Your task to perform on an android device: Show me popular games on the Play Store Image 0: 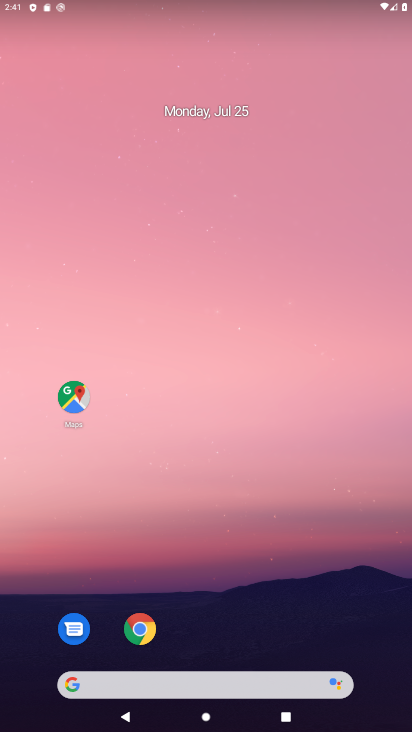
Step 0: drag from (234, 643) to (263, 23)
Your task to perform on an android device: Show me popular games on the Play Store Image 1: 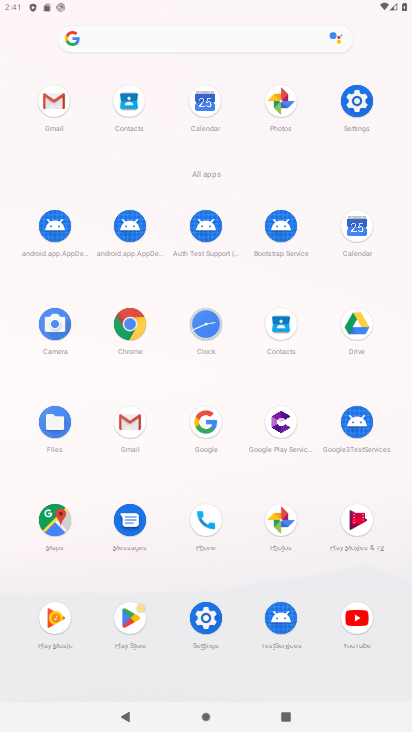
Step 1: click (130, 617)
Your task to perform on an android device: Show me popular games on the Play Store Image 2: 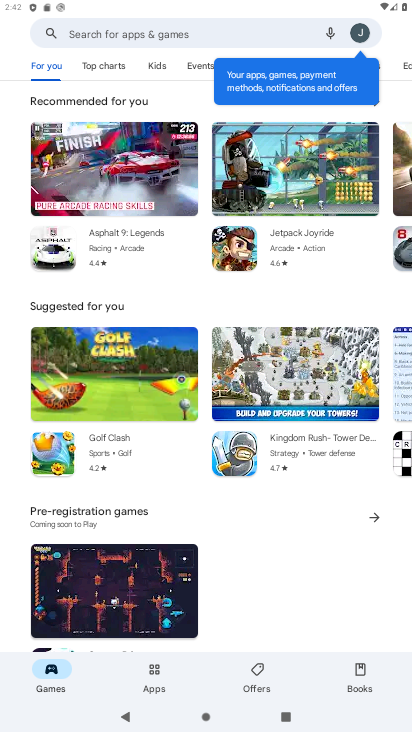
Step 2: drag from (167, 436) to (163, 232)
Your task to perform on an android device: Show me popular games on the Play Store Image 3: 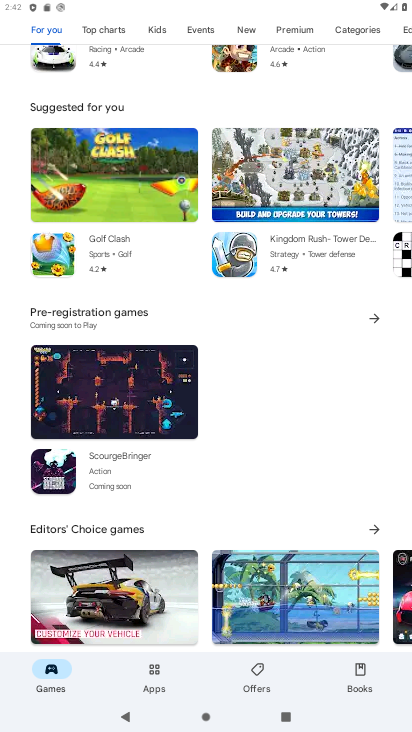
Step 3: click (163, 199)
Your task to perform on an android device: Show me popular games on the Play Store Image 4: 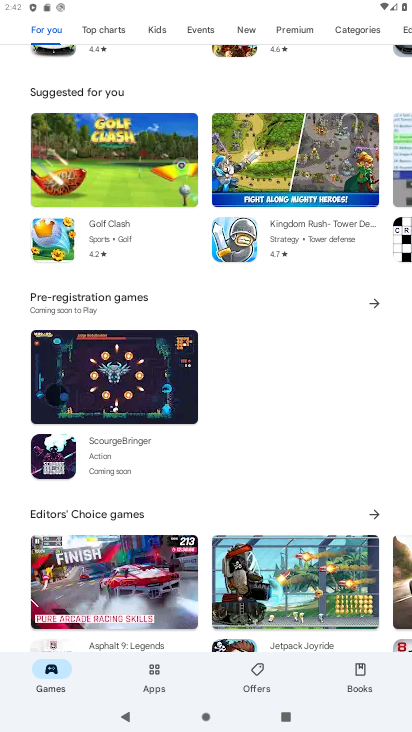
Step 4: drag from (186, 538) to (180, 211)
Your task to perform on an android device: Show me popular games on the Play Store Image 5: 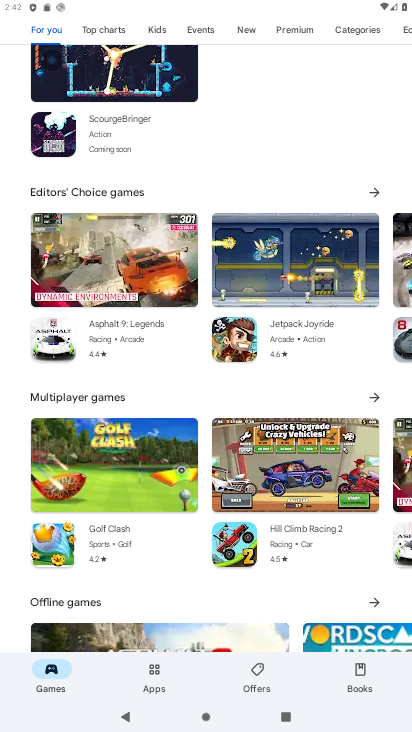
Step 5: drag from (178, 502) to (167, 216)
Your task to perform on an android device: Show me popular games on the Play Store Image 6: 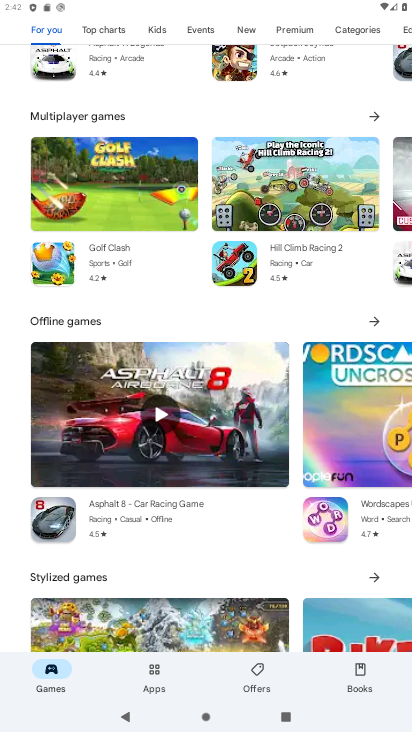
Step 6: drag from (172, 533) to (156, 238)
Your task to perform on an android device: Show me popular games on the Play Store Image 7: 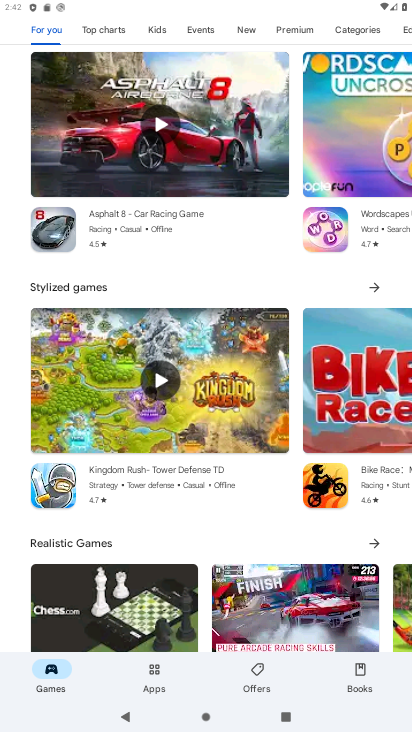
Step 7: drag from (156, 237) to (160, 599)
Your task to perform on an android device: Show me popular games on the Play Store Image 8: 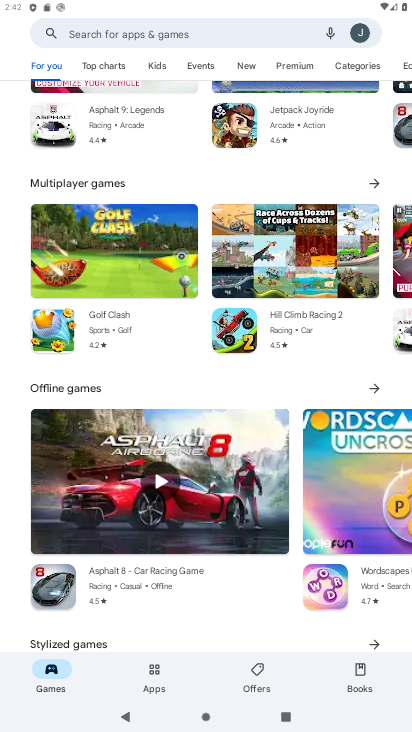
Step 8: drag from (156, 216) to (161, 543)
Your task to perform on an android device: Show me popular games on the Play Store Image 9: 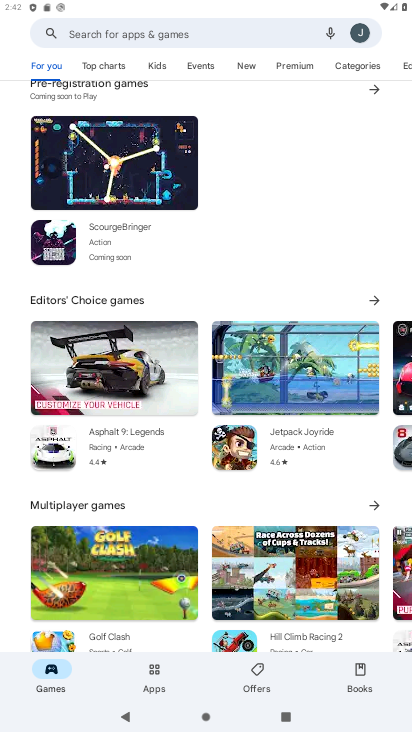
Step 9: drag from (152, 272) to (163, 520)
Your task to perform on an android device: Show me popular games on the Play Store Image 10: 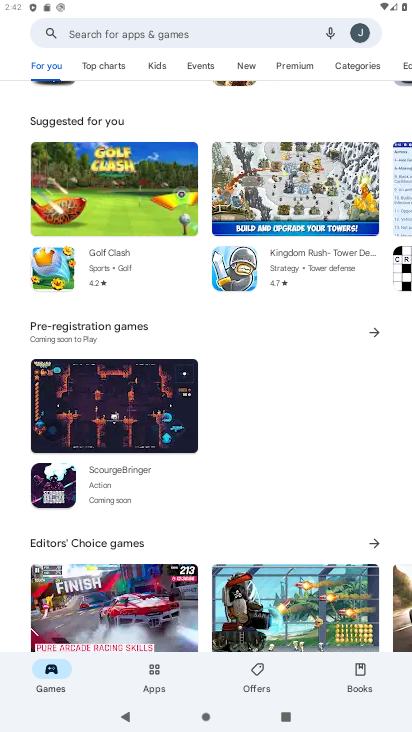
Step 10: drag from (158, 256) to (170, 493)
Your task to perform on an android device: Show me popular games on the Play Store Image 11: 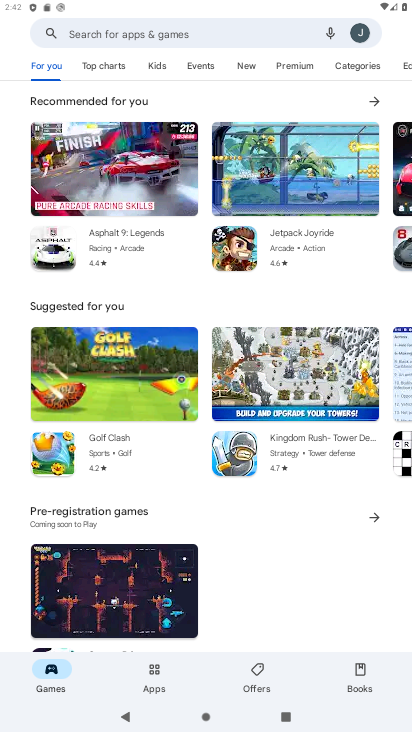
Step 11: drag from (131, 242) to (144, 458)
Your task to perform on an android device: Show me popular games on the Play Store Image 12: 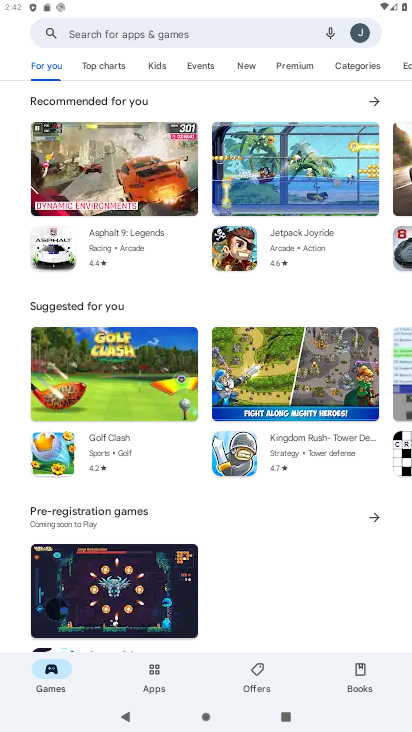
Step 12: drag from (164, 505) to (147, 225)
Your task to perform on an android device: Show me popular games on the Play Store Image 13: 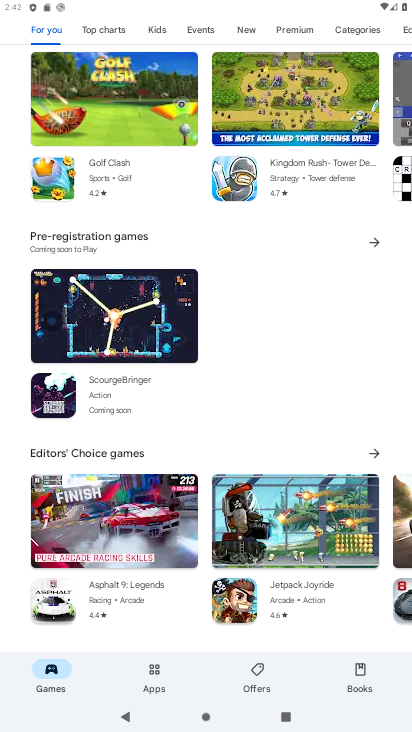
Step 13: drag from (142, 510) to (138, 214)
Your task to perform on an android device: Show me popular games on the Play Store Image 14: 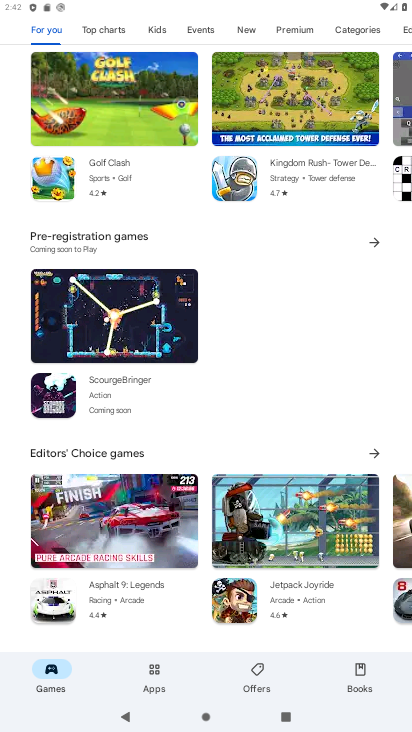
Step 14: drag from (239, 515) to (271, 177)
Your task to perform on an android device: Show me popular games on the Play Store Image 15: 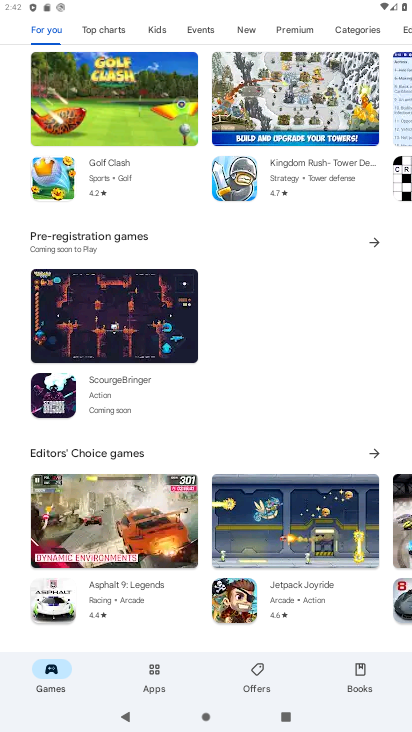
Step 15: drag from (135, 546) to (175, 275)
Your task to perform on an android device: Show me popular games on the Play Store Image 16: 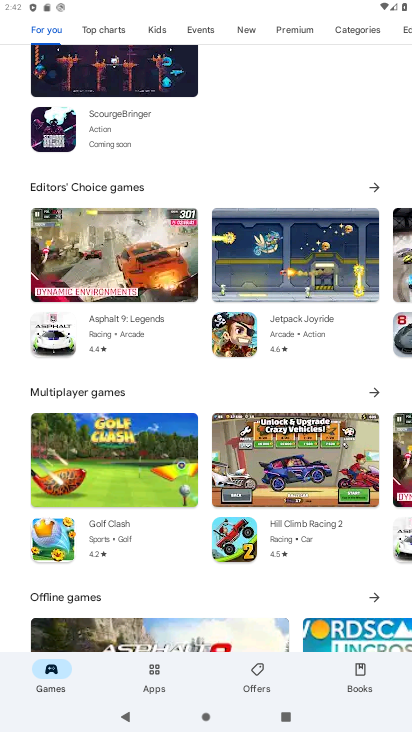
Step 16: drag from (150, 470) to (169, 124)
Your task to perform on an android device: Show me popular games on the Play Store Image 17: 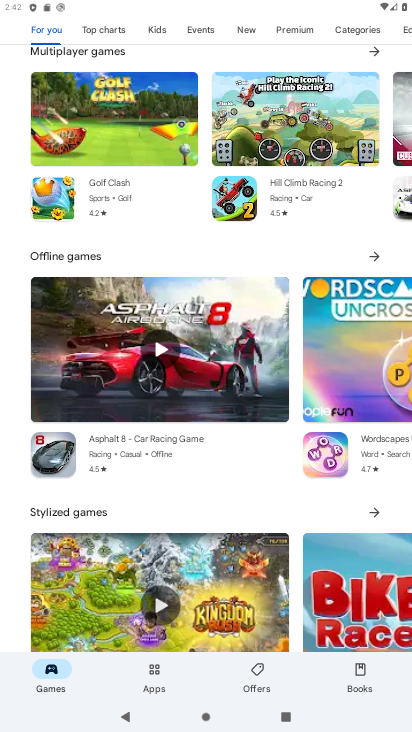
Step 17: drag from (162, 484) to (164, 141)
Your task to perform on an android device: Show me popular games on the Play Store Image 18: 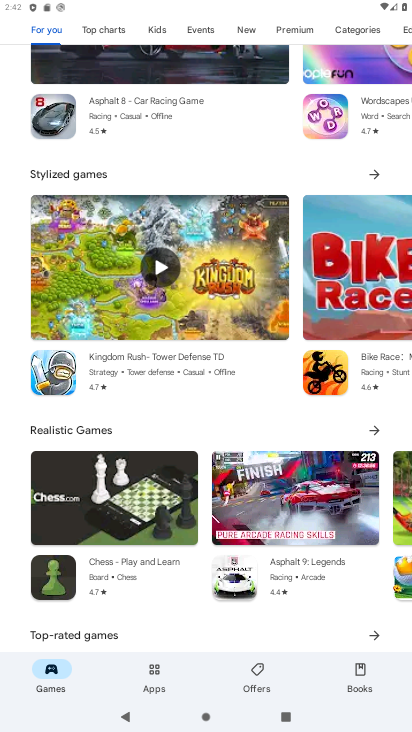
Step 18: drag from (133, 539) to (145, 223)
Your task to perform on an android device: Show me popular games on the Play Store Image 19: 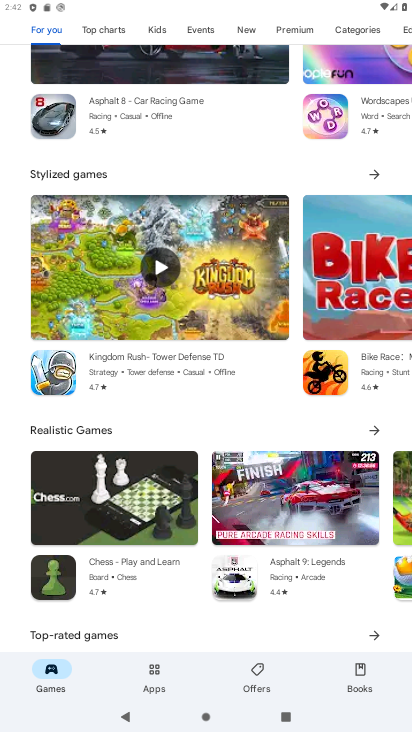
Step 19: drag from (176, 599) to (289, 256)
Your task to perform on an android device: Show me popular games on the Play Store Image 20: 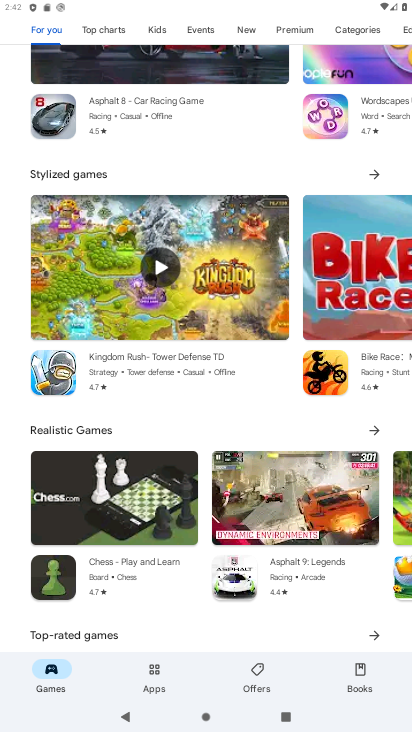
Step 20: drag from (126, 590) to (198, 230)
Your task to perform on an android device: Show me popular games on the Play Store Image 21: 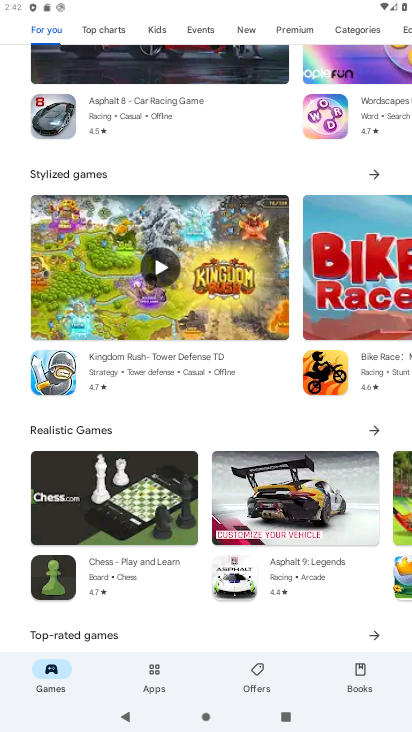
Step 21: drag from (202, 534) to (214, 257)
Your task to perform on an android device: Show me popular games on the Play Store Image 22: 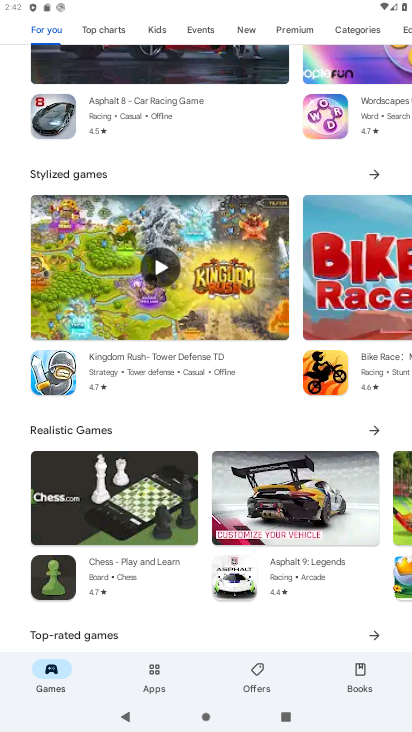
Step 22: drag from (296, 582) to (261, 195)
Your task to perform on an android device: Show me popular games on the Play Store Image 23: 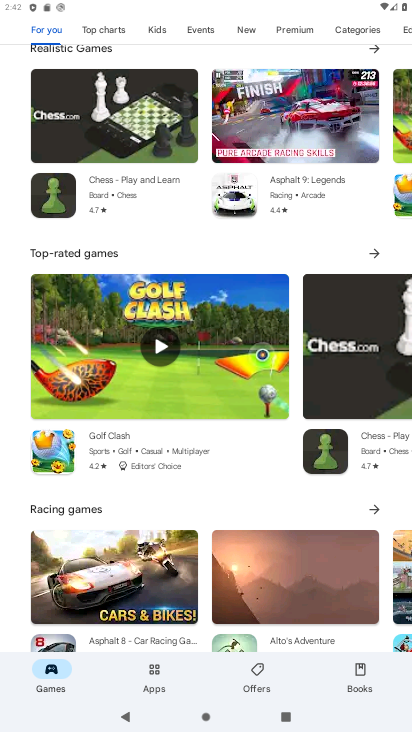
Step 23: drag from (232, 481) to (248, 174)
Your task to perform on an android device: Show me popular games on the Play Store Image 24: 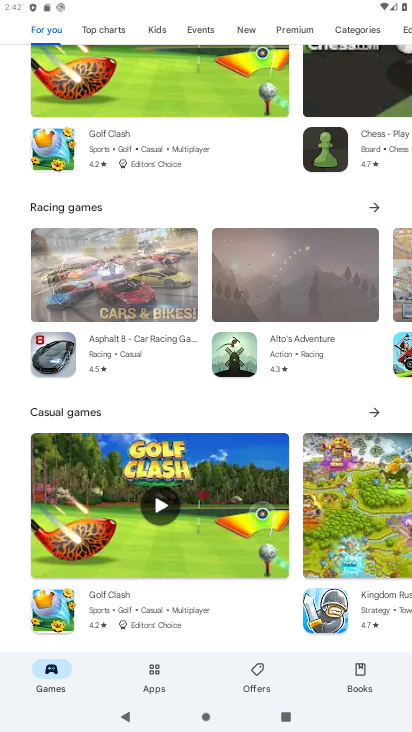
Step 24: drag from (249, 555) to (231, 234)
Your task to perform on an android device: Show me popular games on the Play Store Image 25: 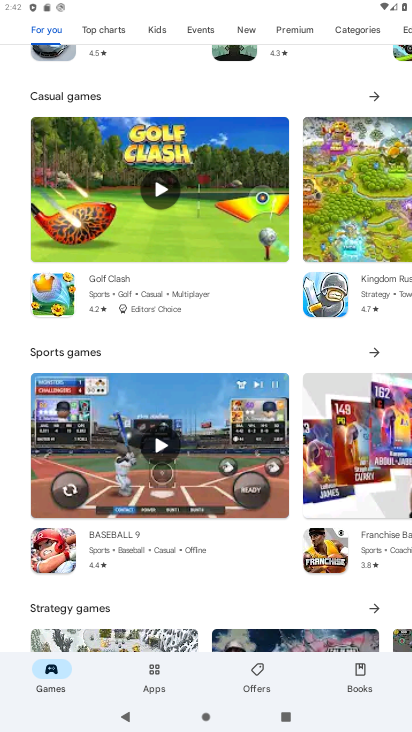
Step 25: drag from (186, 576) to (207, 167)
Your task to perform on an android device: Show me popular games on the Play Store Image 26: 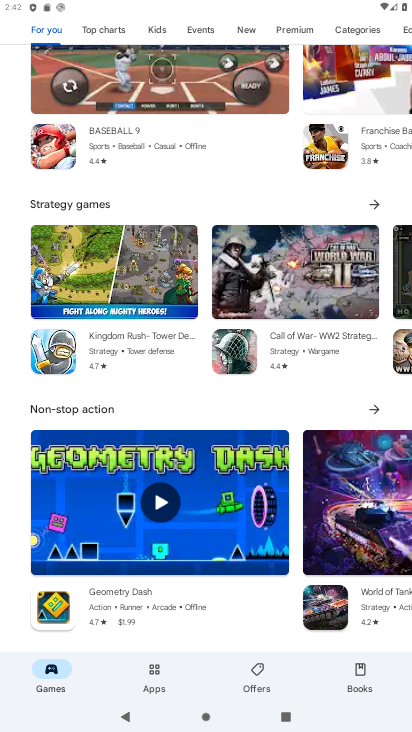
Step 26: drag from (135, 570) to (183, 196)
Your task to perform on an android device: Show me popular games on the Play Store Image 27: 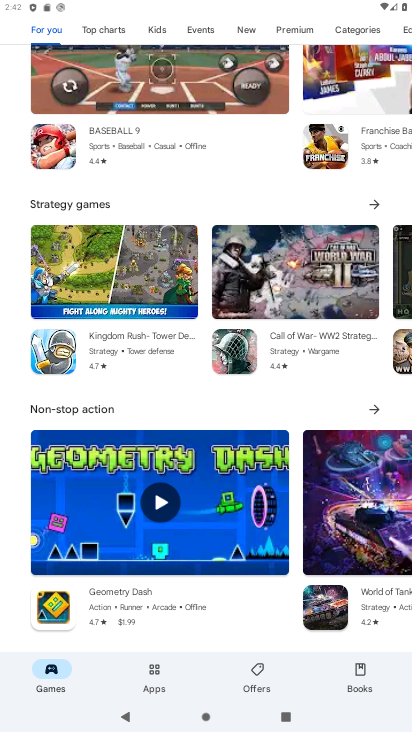
Step 27: drag from (204, 594) to (228, 194)
Your task to perform on an android device: Show me popular games on the Play Store Image 28: 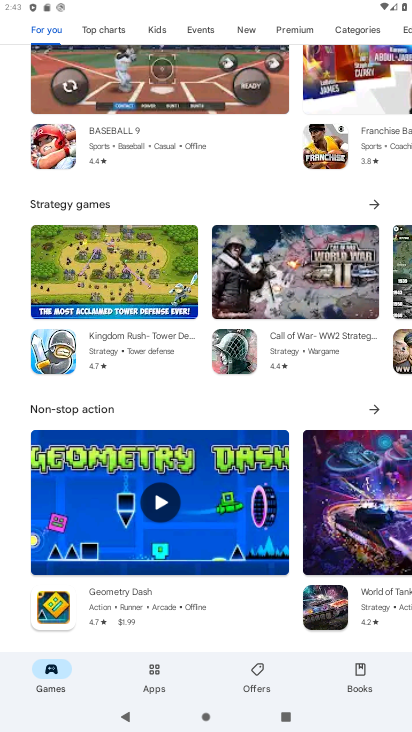
Step 28: drag from (128, 610) to (176, 204)
Your task to perform on an android device: Show me popular games on the Play Store Image 29: 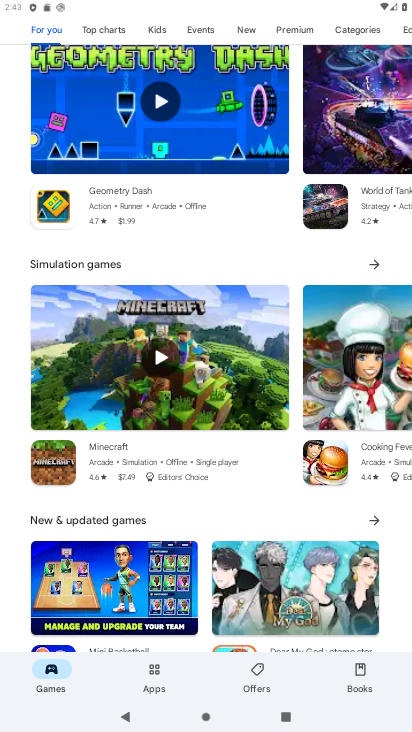
Step 29: drag from (144, 540) to (187, 153)
Your task to perform on an android device: Show me popular games on the Play Store Image 30: 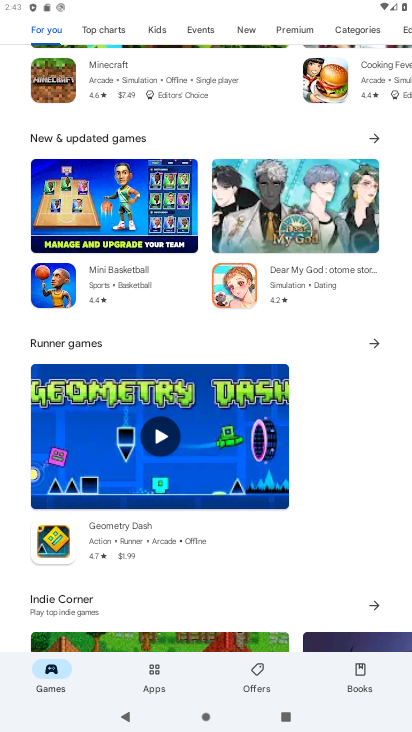
Step 30: drag from (141, 543) to (165, 128)
Your task to perform on an android device: Show me popular games on the Play Store Image 31: 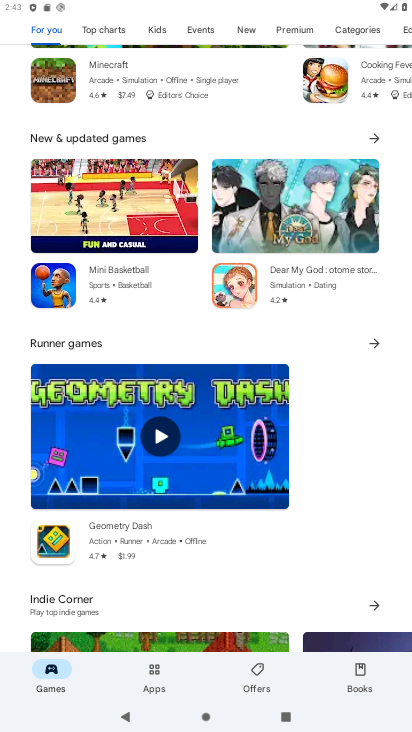
Step 31: drag from (237, 511) to (275, 128)
Your task to perform on an android device: Show me popular games on the Play Store Image 32: 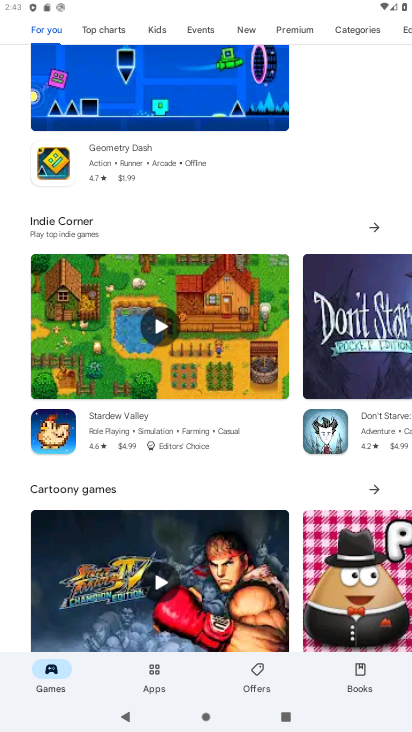
Step 32: drag from (178, 473) to (228, 133)
Your task to perform on an android device: Show me popular games on the Play Store Image 33: 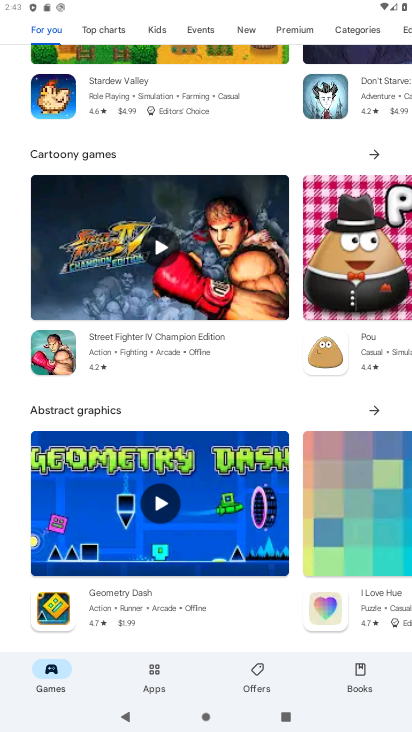
Step 33: drag from (186, 551) to (232, 161)
Your task to perform on an android device: Show me popular games on the Play Store Image 34: 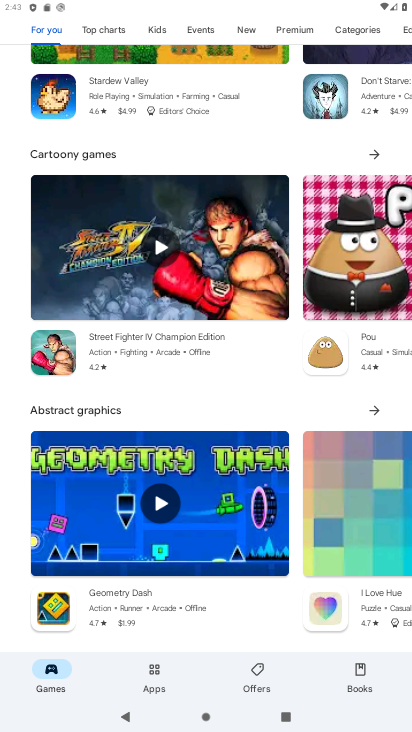
Step 34: drag from (232, 156) to (157, 570)
Your task to perform on an android device: Show me popular games on the Play Store Image 35: 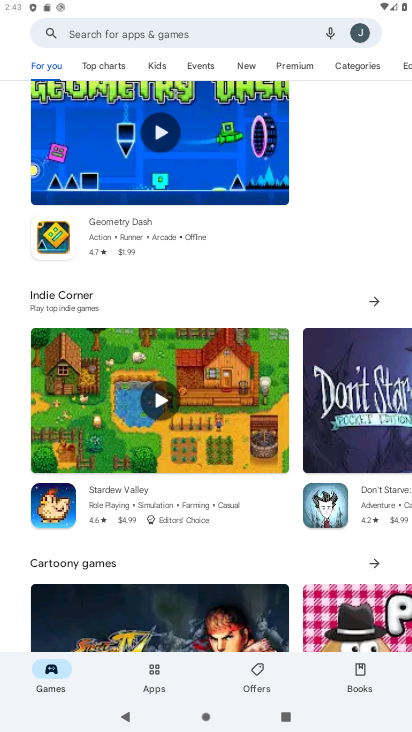
Step 35: drag from (173, 144) to (81, 540)
Your task to perform on an android device: Show me popular games on the Play Store Image 36: 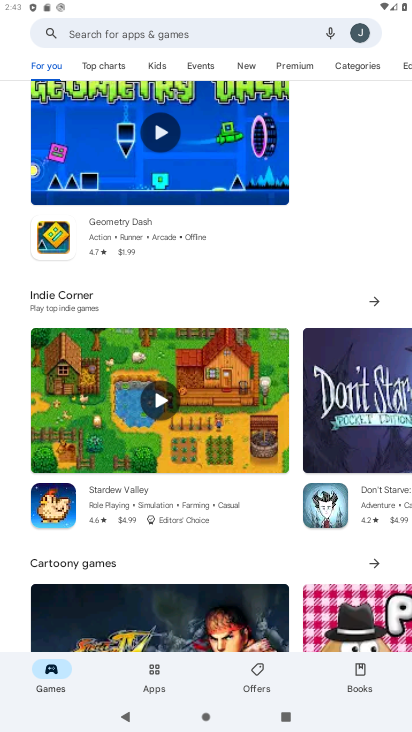
Step 36: click (357, 66)
Your task to perform on an android device: Show me popular games on the Play Store Image 37: 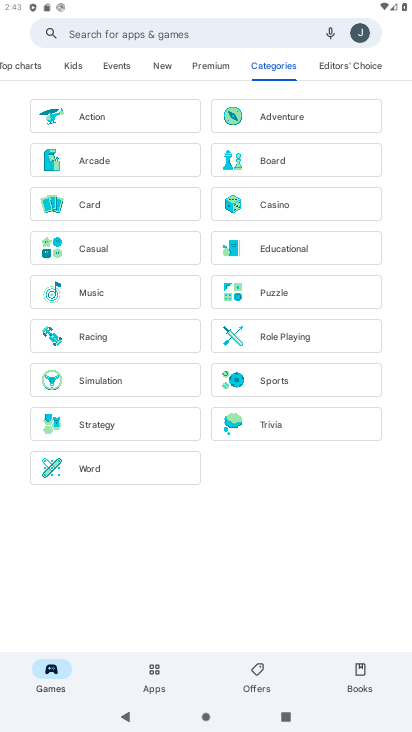
Step 37: task complete